Your task to perform on an android device: Open Google Image 0: 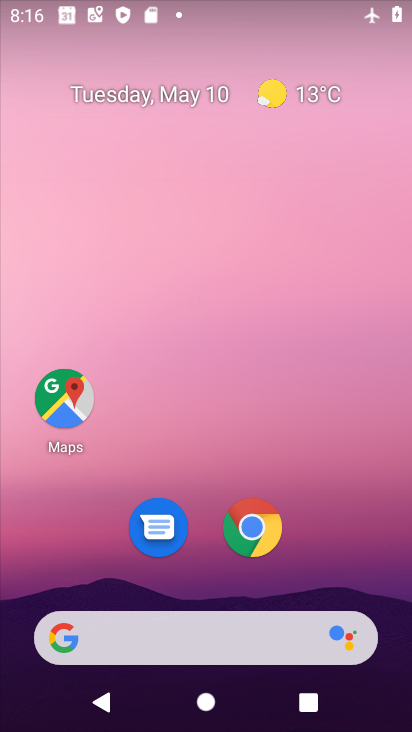
Step 0: drag from (331, 2) to (336, 425)
Your task to perform on an android device: Open Google Image 1: 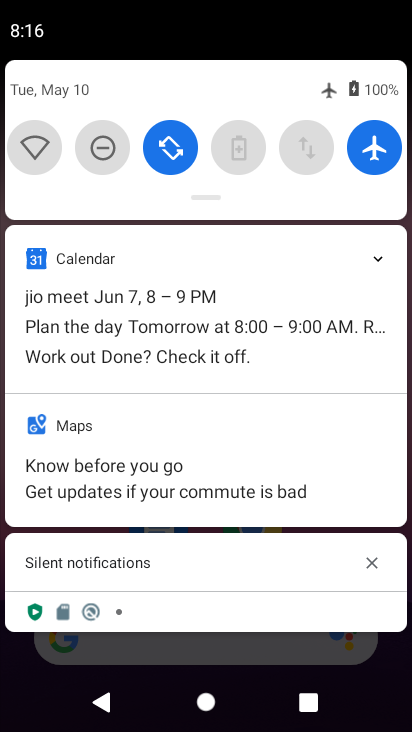
Step 1: click (387, 156)
Your task to perform on an android device: Open Google Image 2: 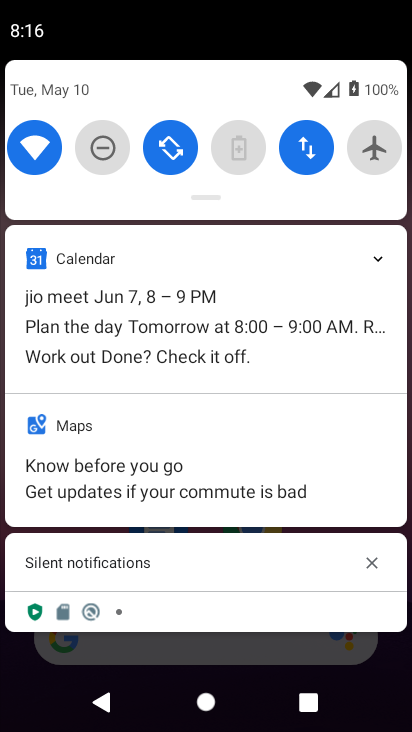
Step 2: press back button
Your task to perform on an android device: Open Google Image 3: 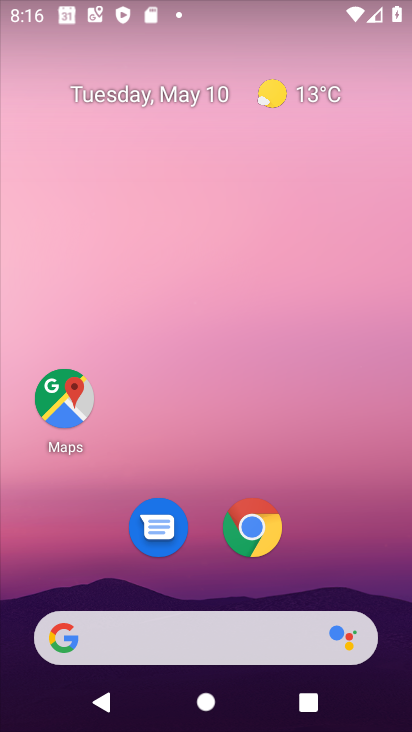
Step 3: click (156, 438)
Your task to perform on an android device: Open Google Image 4: 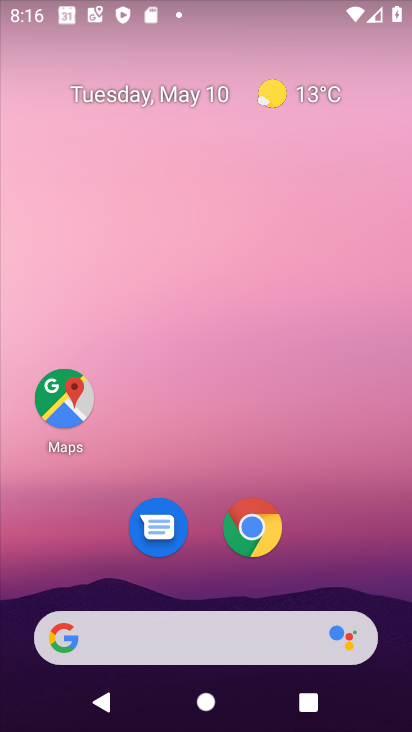
Step 4: drag from (69, 571) to (288, 173)
Your task to perform on an android device: Open Google Image 5: 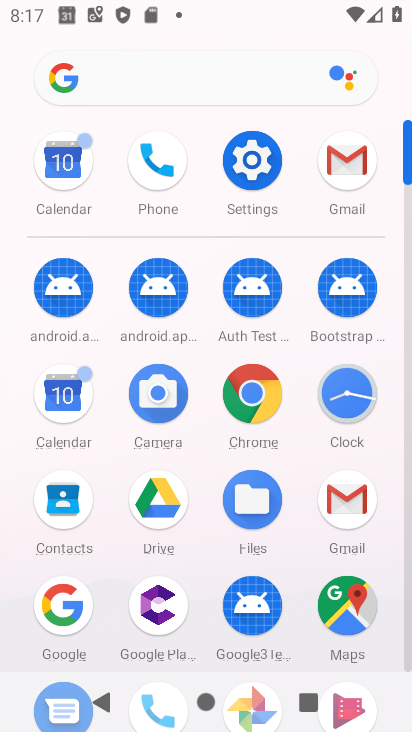
Step 5: click (77, 607)
Your task to perform on an android device: Open Google Image 6: 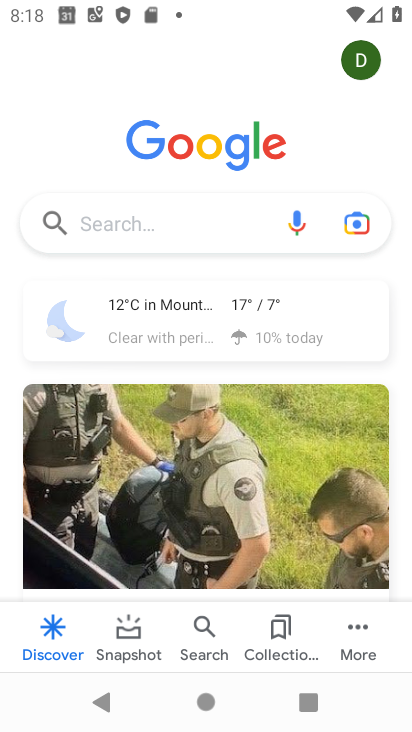
Step 6: task complete